Your task to perform on an android device: Search for hotels in London Image 0: 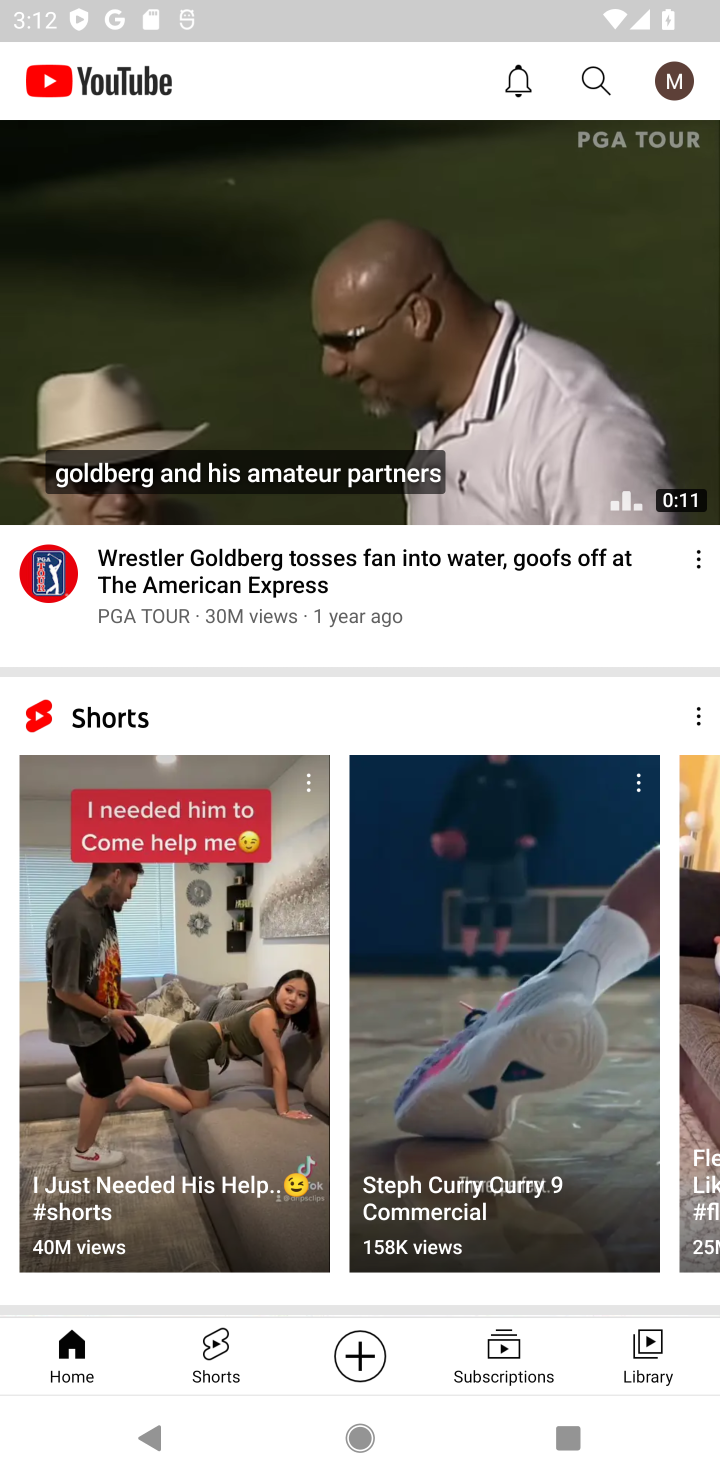
Step 0: press home button
Your task to perform on an android device: Search for hotels in London Image 1: 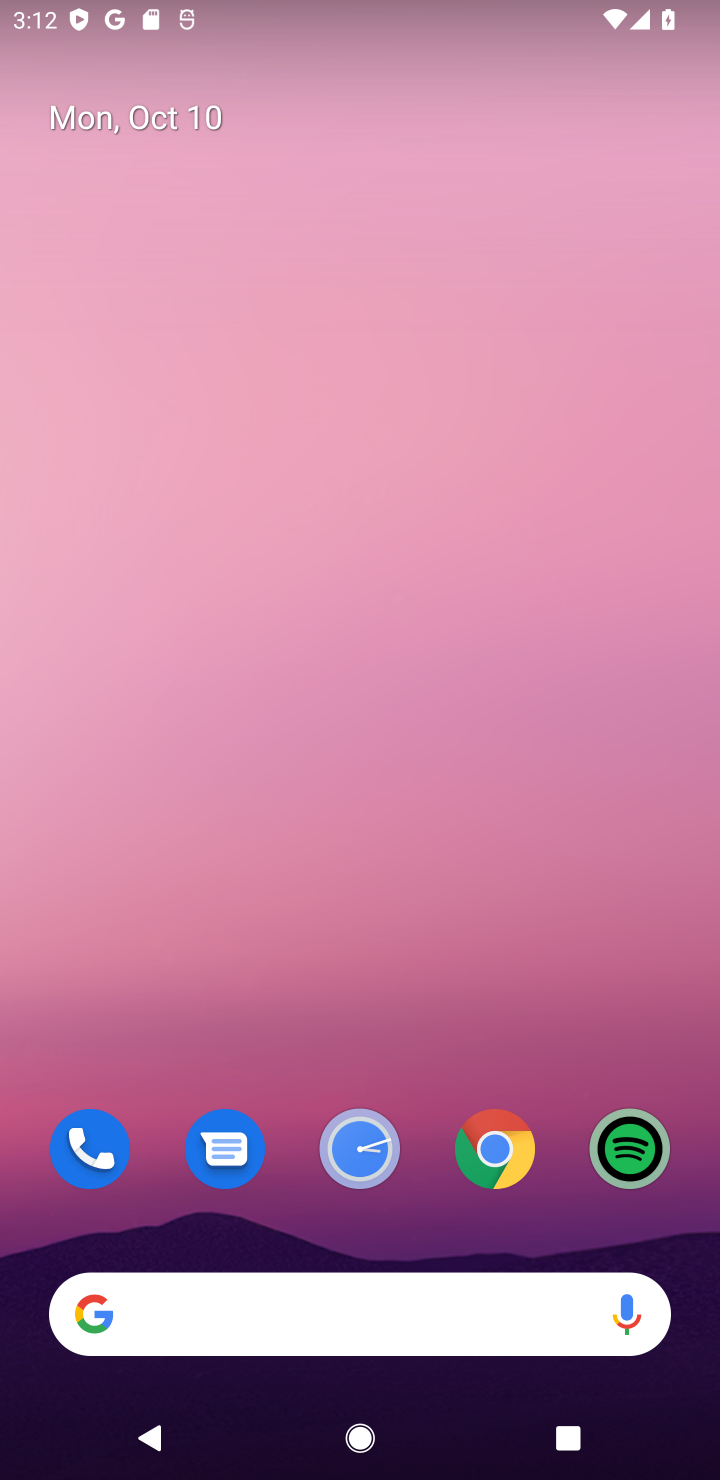
Step 1: click (306, 1303)
Your task to perform on an android device: Search for hotels in London Image 2: 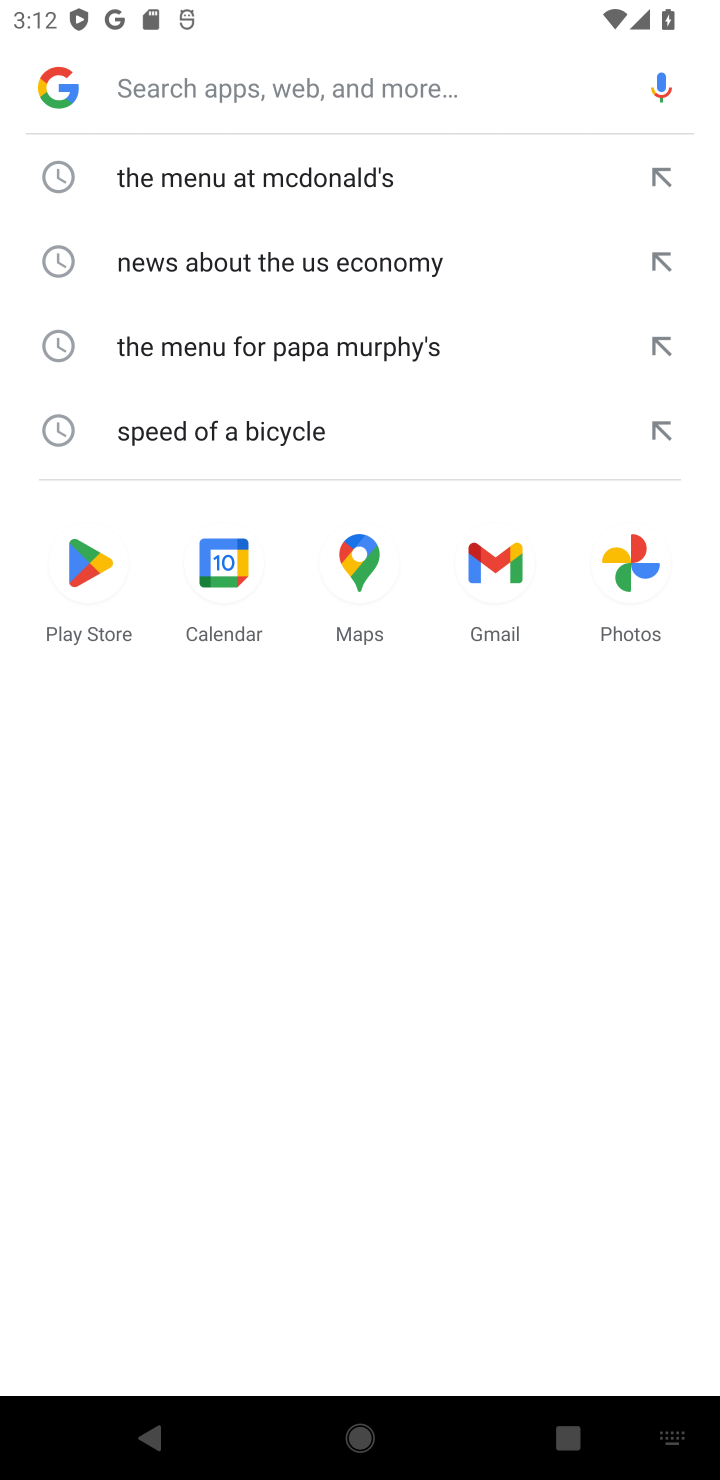
Step 2: type "hotels in London"
Your task to perform on an android device: Search for hotels in London Image 3: 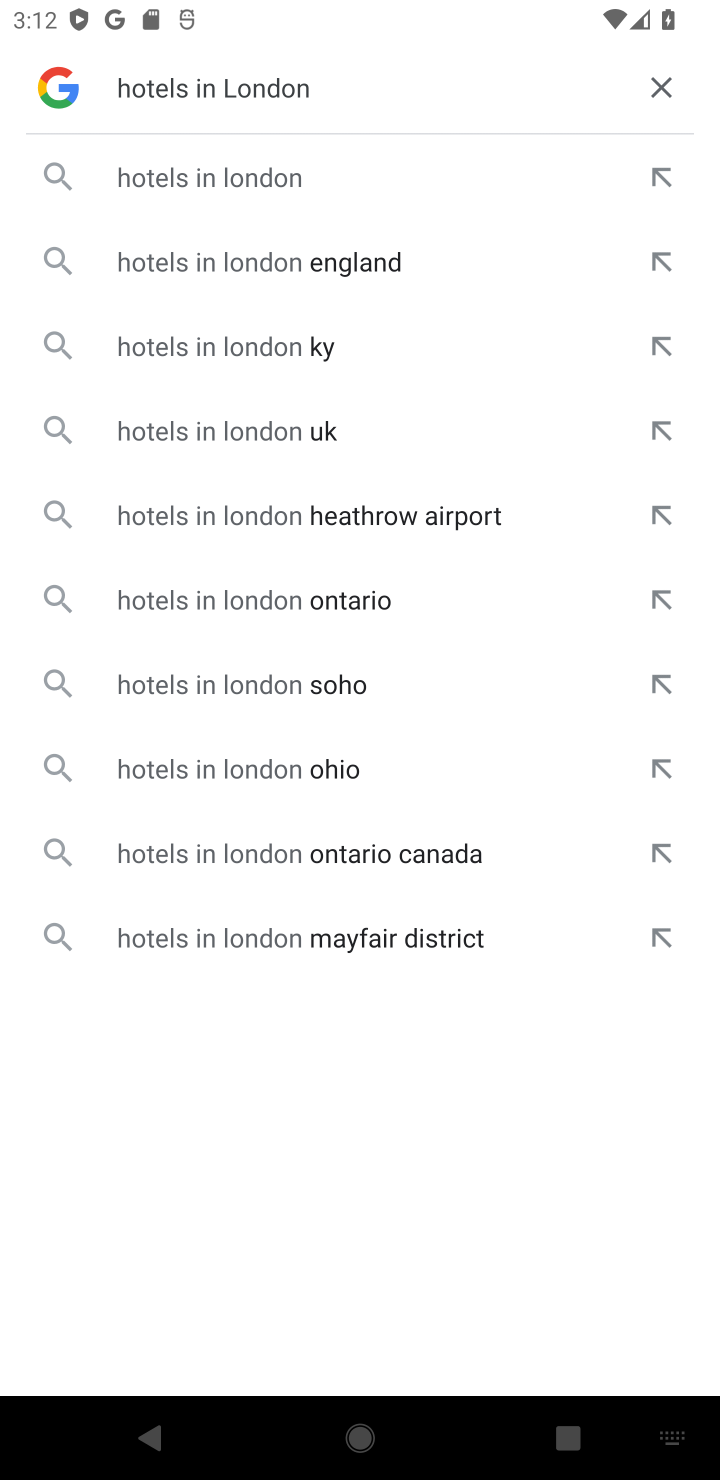
Step 3: click (251, 198)
Your task to perform on an android device: Search for hotels in London Image 4: 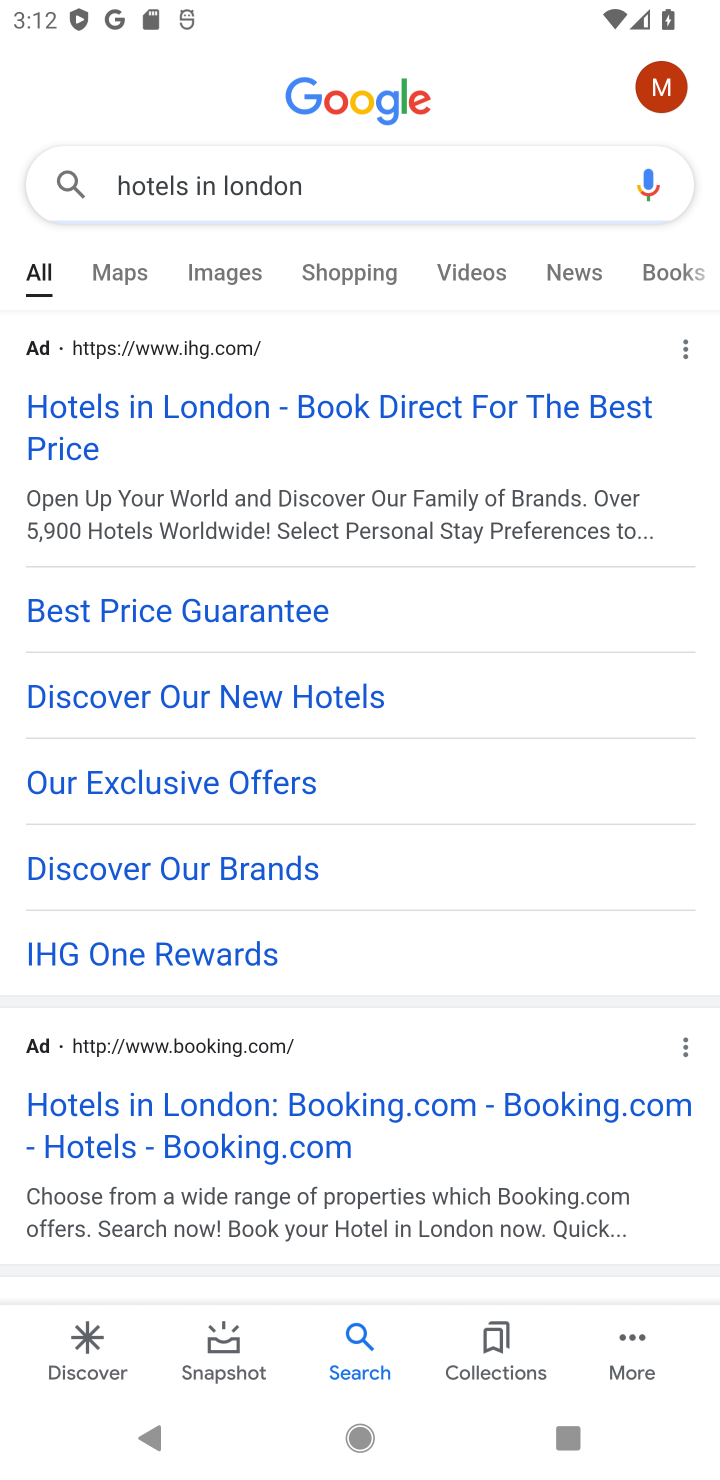
Step 4: task complete